Your task to perform on an android device: What is the news today? Image 0: 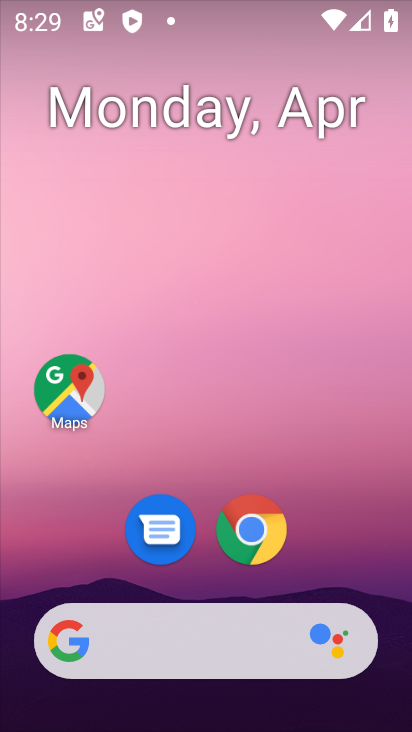
Step 0: click (275, 542)
Your task to perform on an android device: What is the news today? Image 1: 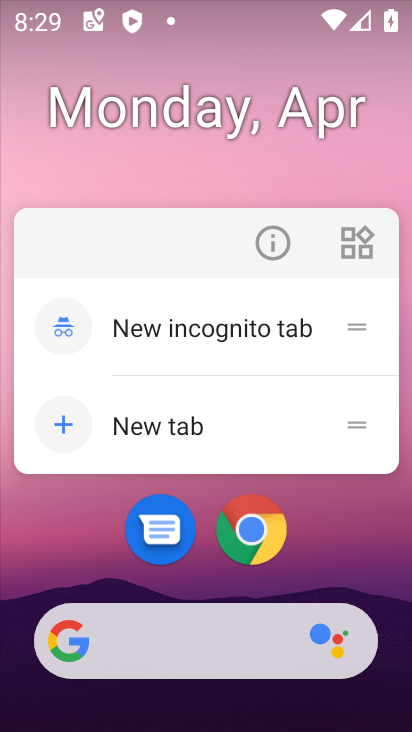
Step 1: drag from (357, 553) to (343, 113)
Your task to perform on an android device: What is the news today? Image 2: 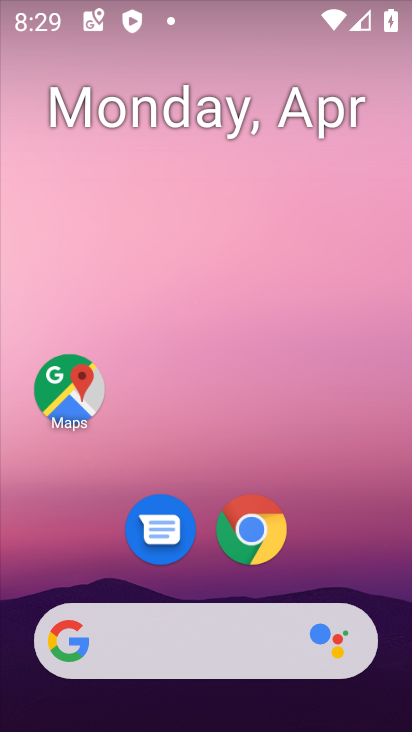
Step 2: click (286, 531)
Your task to perform on an android device: What is the news today? Image 3: 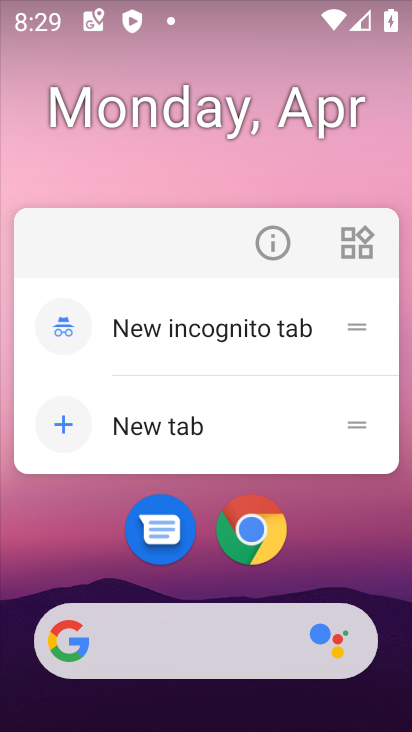
Step 3: click (272, 537)
Your task to perform on an android device: What is the news today? Image 4: 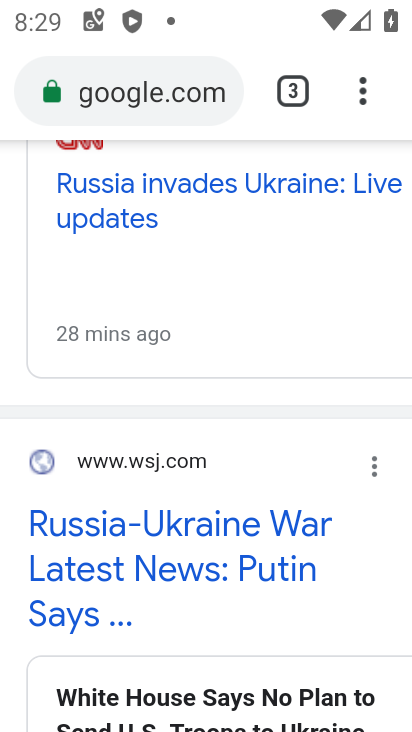
Step 4: click (286, 92)
Your task to perform on an android device: What is the news today? Image 5: 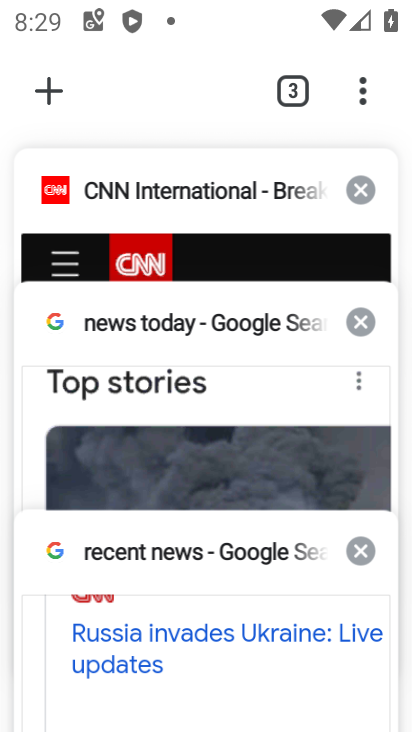
Step 5: click (52, 89)
Your task to perform on an android device: What is the news today? Image 6: 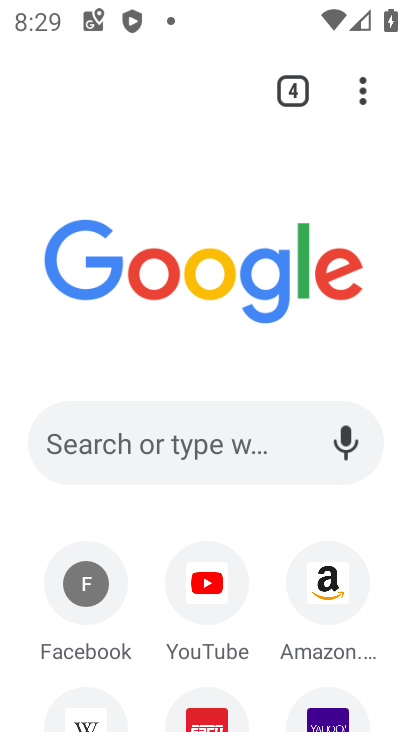
Step 6: click (148, 449)
Your task to perform on an android device: What is the news today? Image 7: 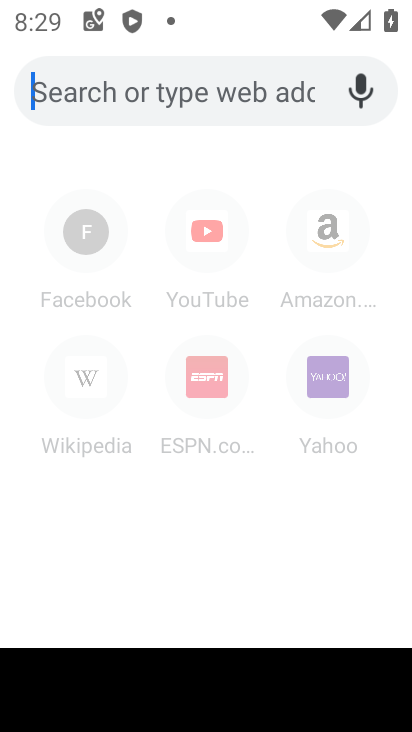
Step 7: type "news today"
Your task to perform on an android device: What is the news today? Image 8: 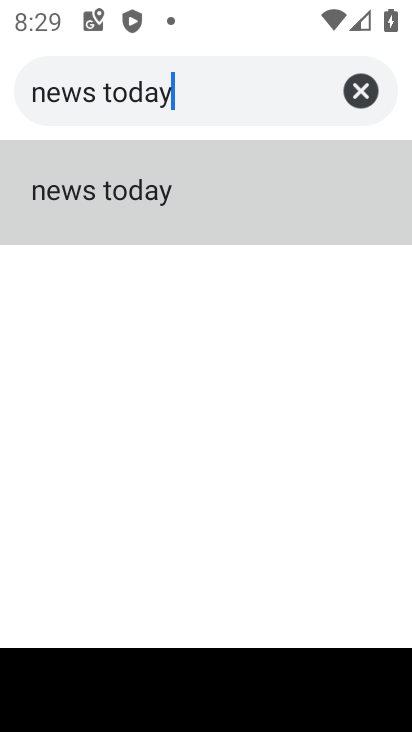
Step 8: click (92, 191)
Your task to perform on an android device: What is the news today? Image 9: 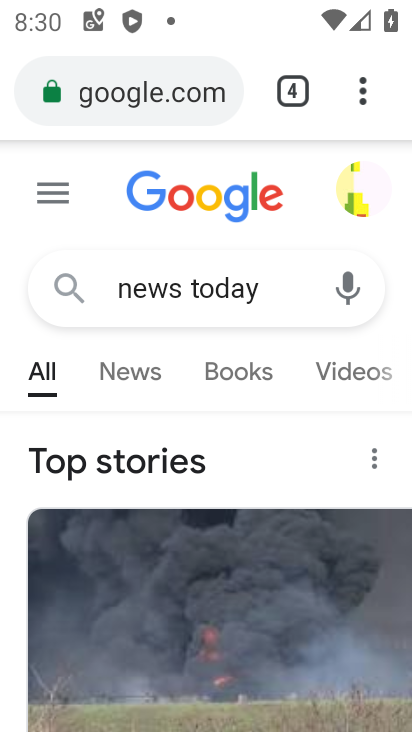
Step 9: task complete